Your task to perform on an android device: Open Wikipedia Image 0: 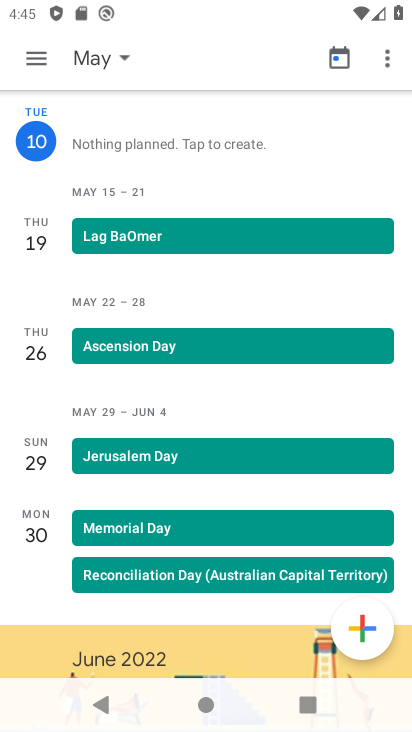
Step 0: press back button
Your task to perform on an android device: Open Wikipedia Image 1: 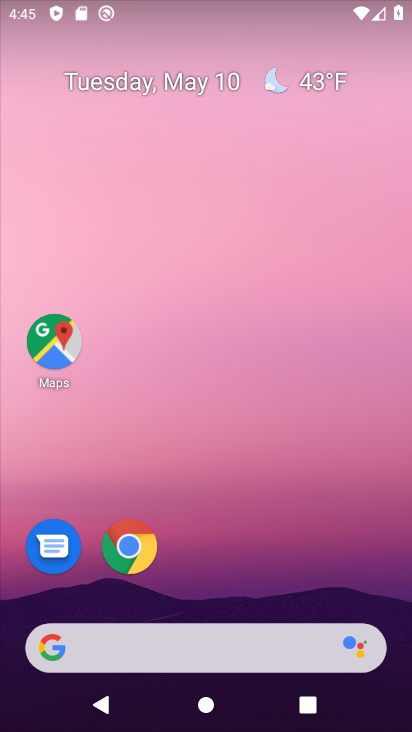
Step 1: drag from (293, 598) to (80, 0)
Your task to perform on an android device: Open Wikipedia Image 2: 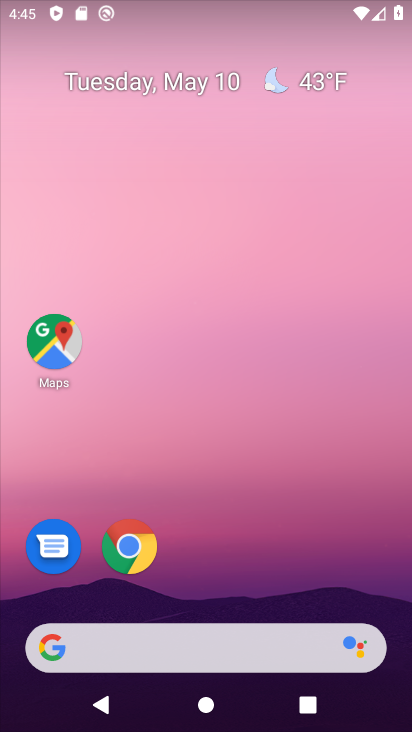
Step 2: drag from (258, 508) to (119, 31)
Your task to perform on an android device: Open Wikipedia Image 3: 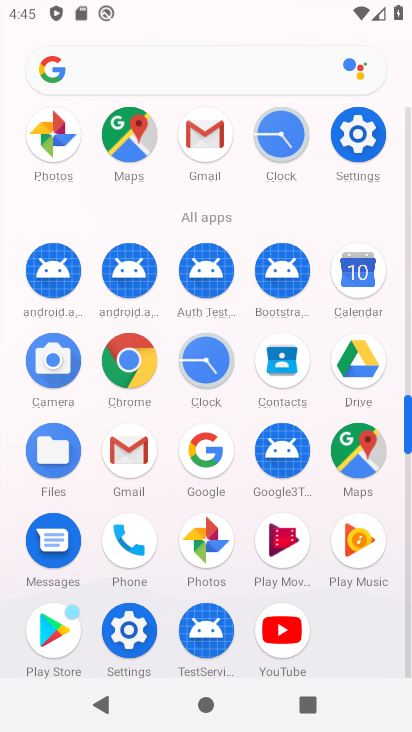
Step 3: click (129, 356)
Your task to perform on an android device: Open Wikipedia Image 4: 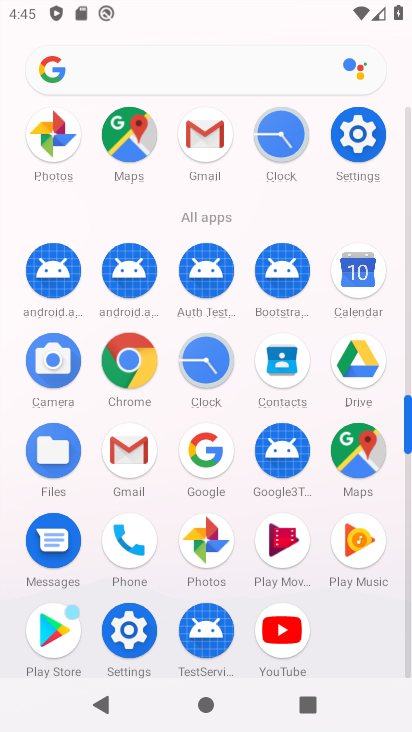
Step 4: click (121, 353)
Your task to perform on an android device: Open Wikipedia Image 5: 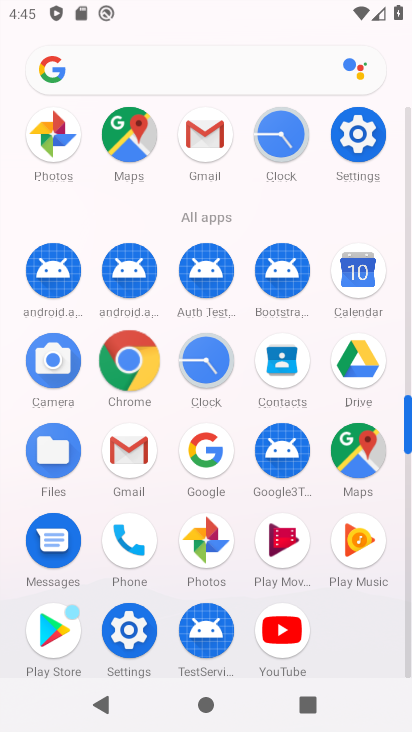
Step 5: click (120, 354)
Your task to perform on an android device: Open Wikipedia Image 6: 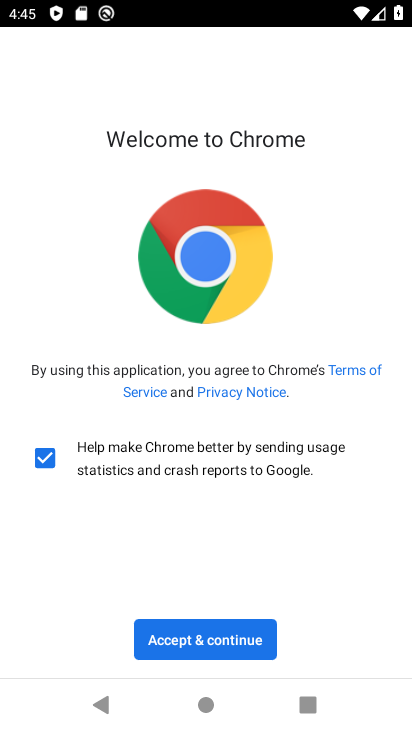
Step 6: click (234, 635)
Your task to perform on an android device: Open Wikipedia Image 7: 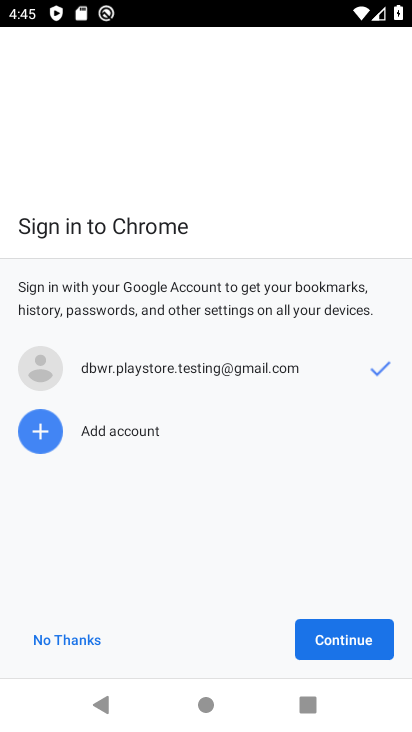
Step 7: click (348, 633)
Your task to perform on an android device: Open Wikipedia Image 8: 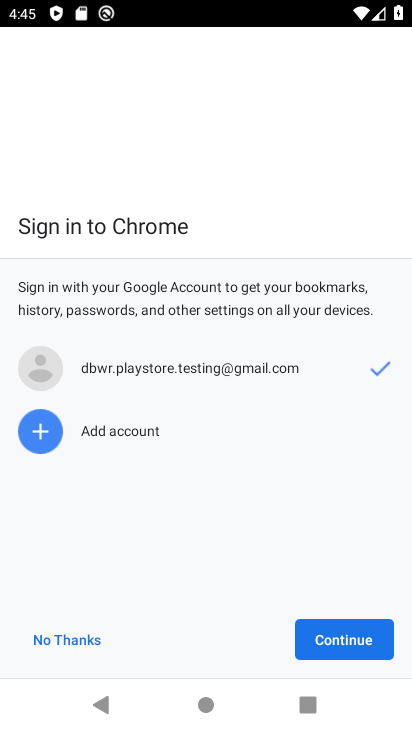
Step 8: click (350, 629)
Your task to perform on an android device: Open Wikipedia Image 9: 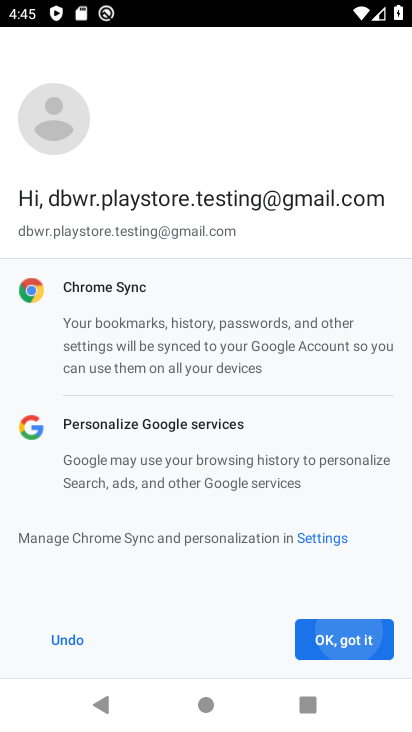
Step 9: click (352, 627)
Your task to perform on an android device: Open Wikipedia Image 10: 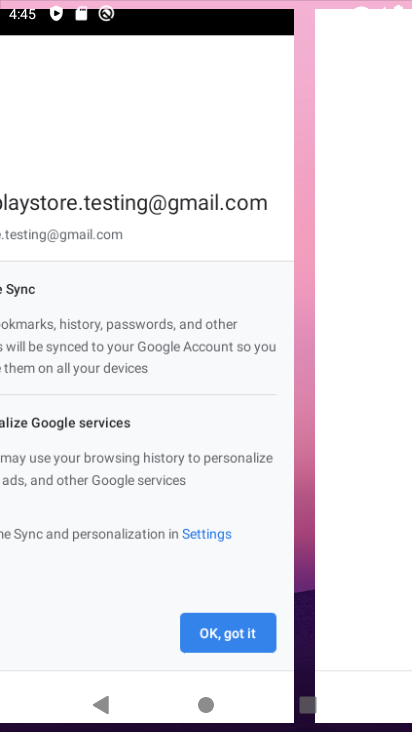
Step 10: click (353, 627)
Your task to perform on an android device: Open Wikipedia Image 11: 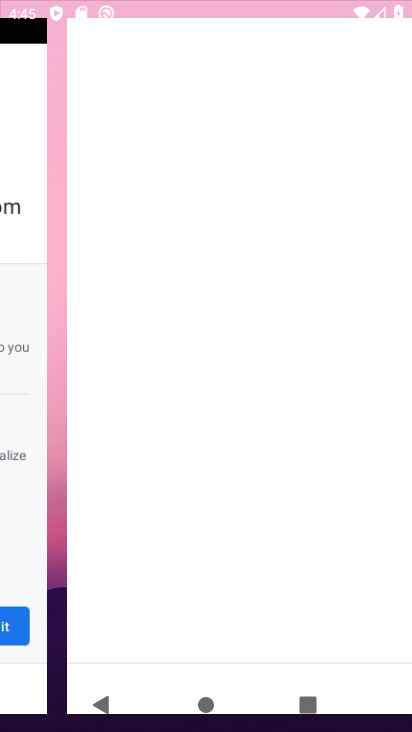
Step 11: click (353, 627)
Your task to perform on an android device: Open Wikipedia Image 12: 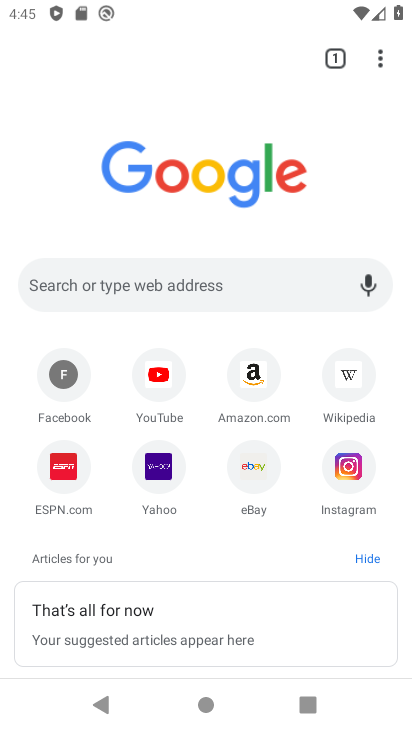
Step 12: click (354, 379)
Your task to perform on an android device: Open Wikipedia Image 13: 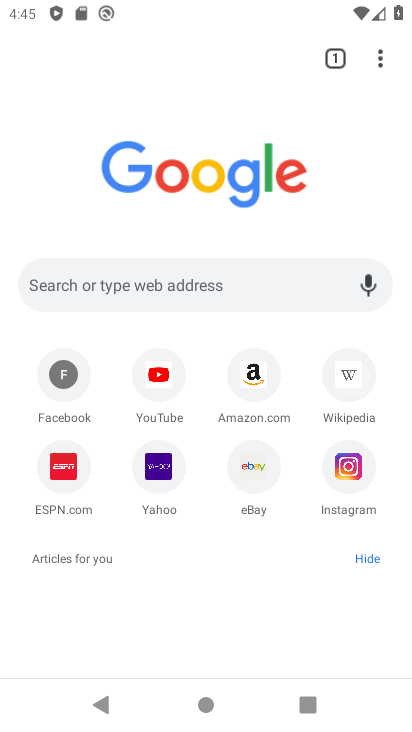
Step 13: click (354, 379)
Your task to perform on an android device: Open Wikipedia Image 14: 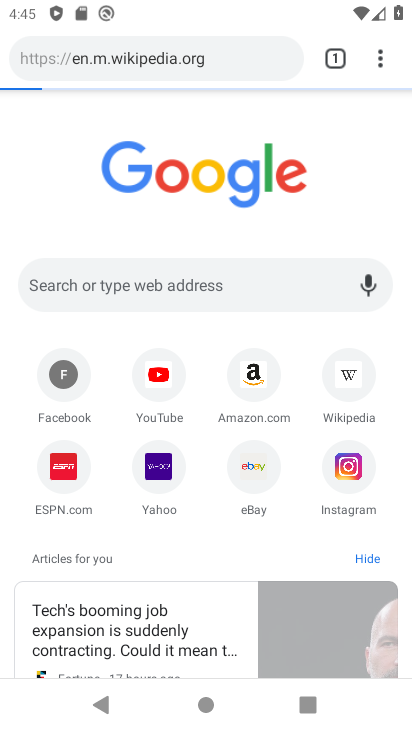
Step 14: click (350, 379)
Your task to perform on an android device: Open Wikipedia Image 15: 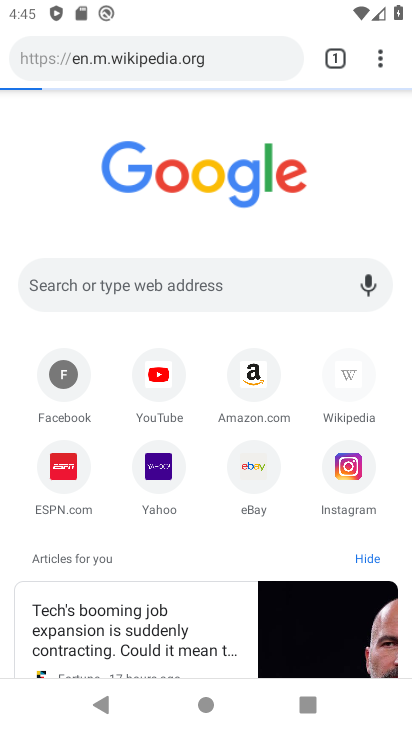
Step 15: click (351, 380)
Your task to perform on an android device: Open Wikipedia Image 16: 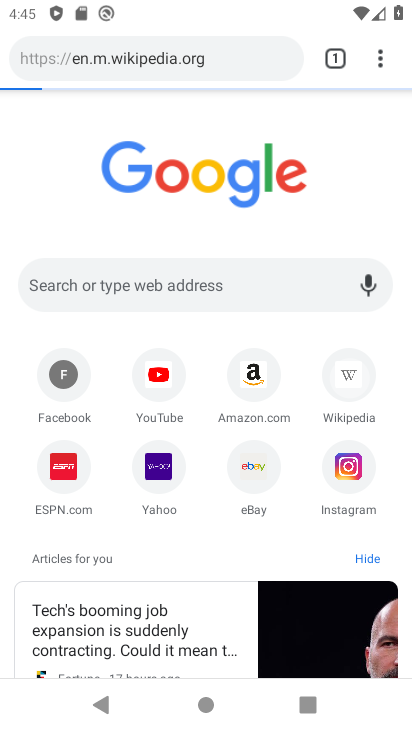
Step 16: click (350, 379)
Your task to perform on an android device: Open Wikipedia Image 17: 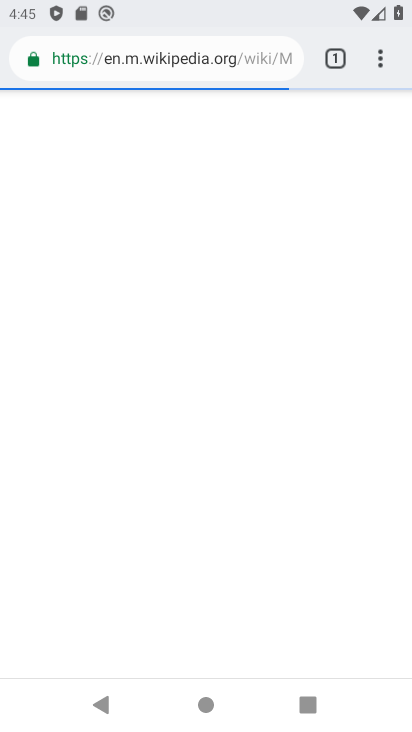
Step 17: task complete